Your task to perform on an android device: Set the phone to "Do not disturb". Image 0: 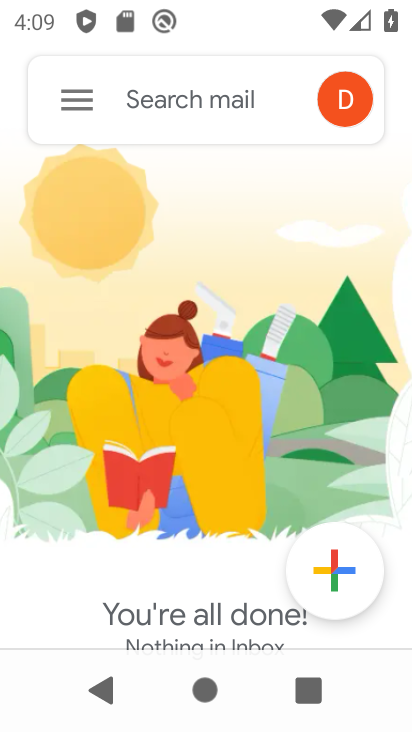
Step 0: drag from (262, 17) to (285, 303)
Your task to perform on an android device: Set the phone to "Do not disturb". Image 1: 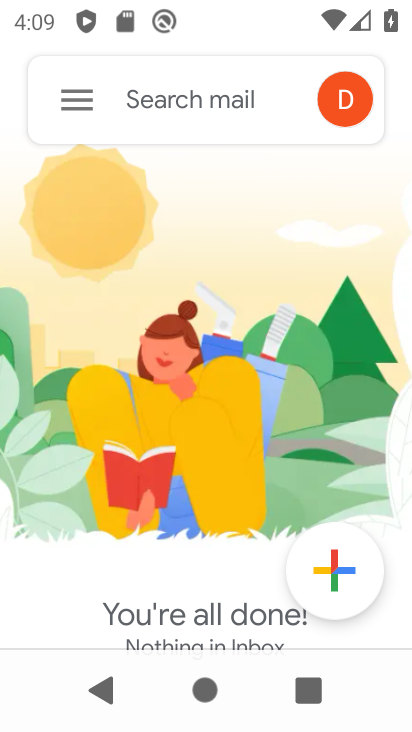
Step 1: drag from (233, 2) to (275, 461)
Your task to perform on an android device: Set the phone to "Do not disturb". Image 2: 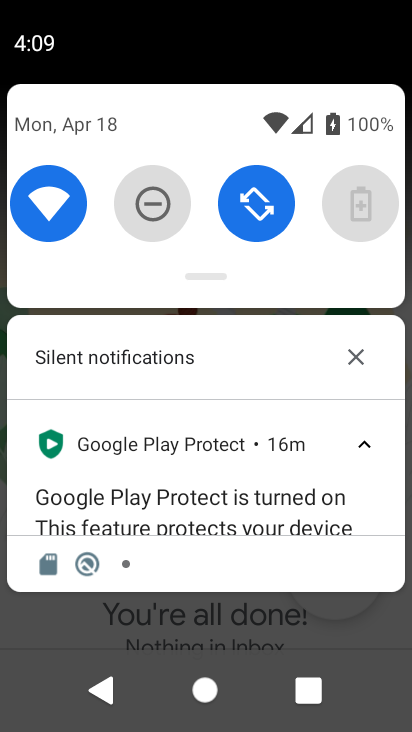
Step 2: drag from (209, 256) to (310, 575)
Your task to perform on an android device: Set the phone to "Do not disturb". Image 3: 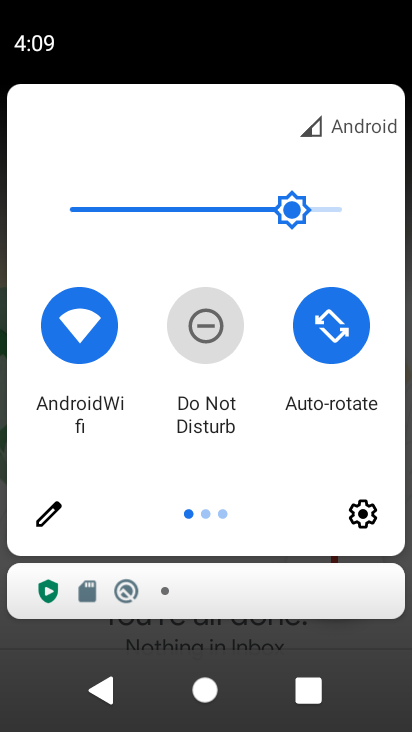
Step 3: click (209, 342)
Your task to perform on an android device: Set the phone to "Do not disturb". Image 4: 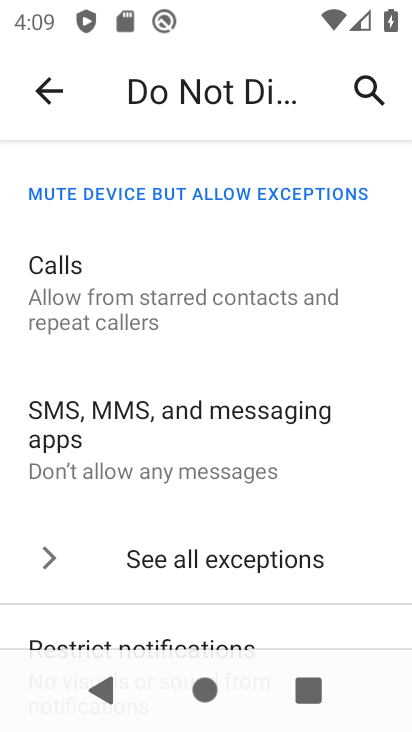
Step 4: drag from (270, 532) to (208, 26)
Your task to perform on an android device: Set the phone to "Do not disturb". Image 5: 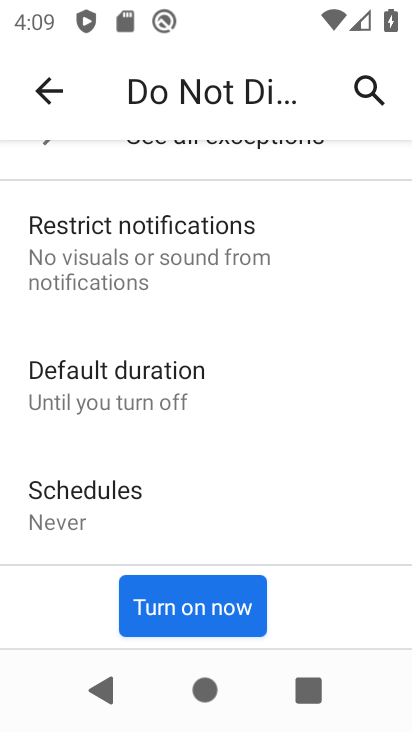
Step 5: click (176, 630)
Your task to perform on an android device: Set the phone to "Do not disturb". Image 6: 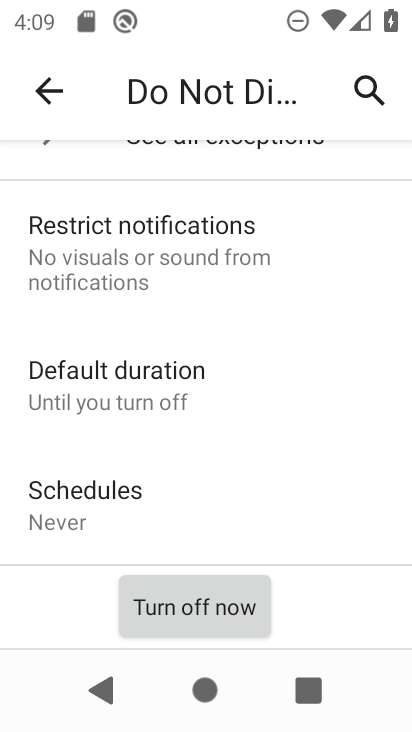
Step 6: task complete